Your task to perform on an android device: turn off sleep mode Image 0: 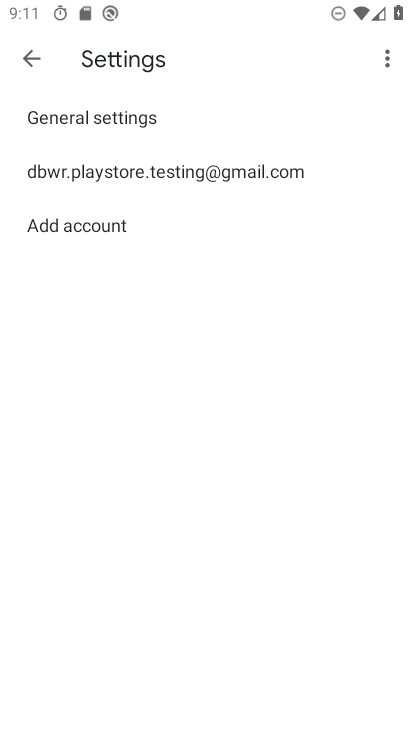
Step 0: press home button
Your task to perform on an android device: turn off sleep mode Image 1: 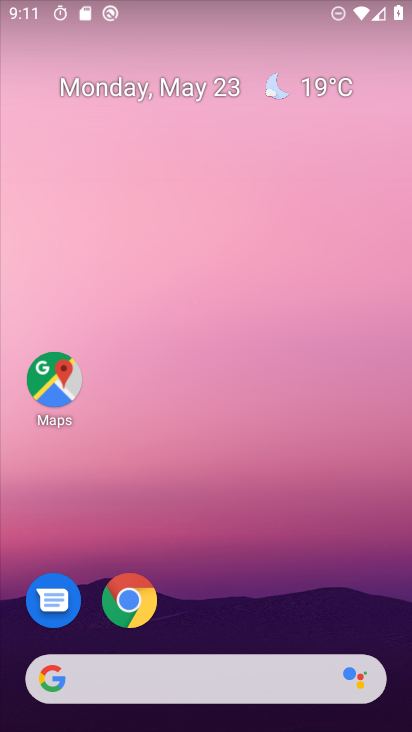
Step 1: drag from (23, 622) to (182, 161)
Your task to perform on an android device: turn off sleep mode Image 2: 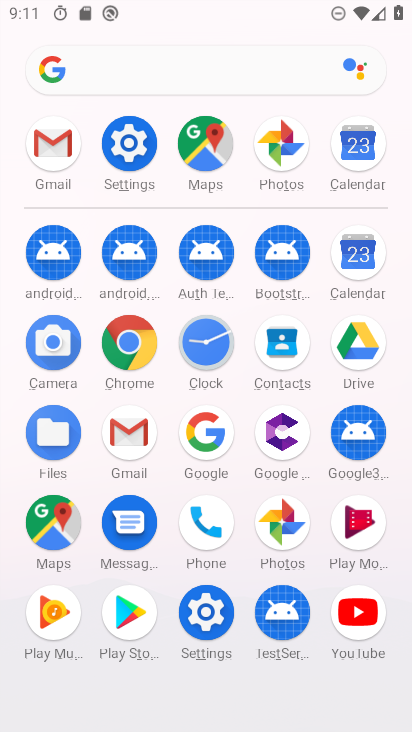
Step 2: click (127, 146)
Your task to perform on an android device: turn off sleep mode Image 3: 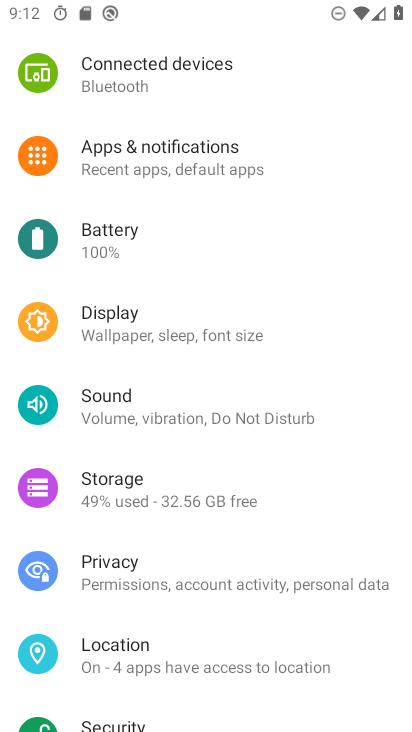
Step 3: click (259, 342)
Your task to perform on an android device: turn off sleep mode Image 4: 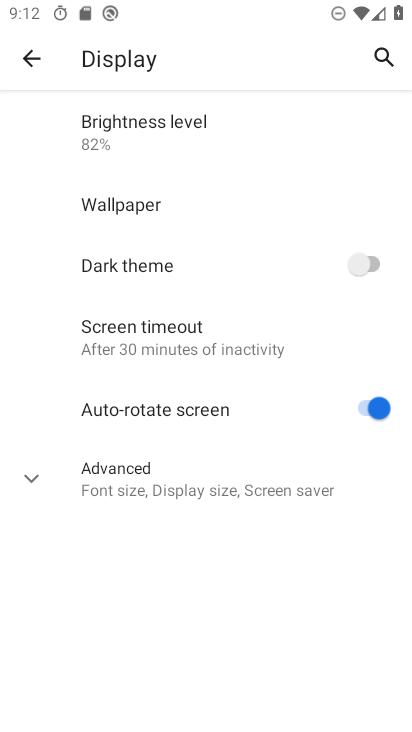
Step 4: task complete